Your task to perform on an android device: toggle data saver in the chrome app Image 0: 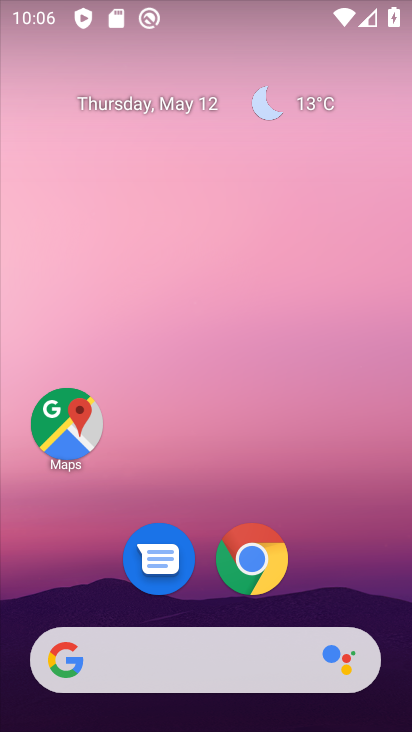
Step 0: click (257, 566)
Your task to perform on an android device: toggle data saver in the chrome app Image 1: 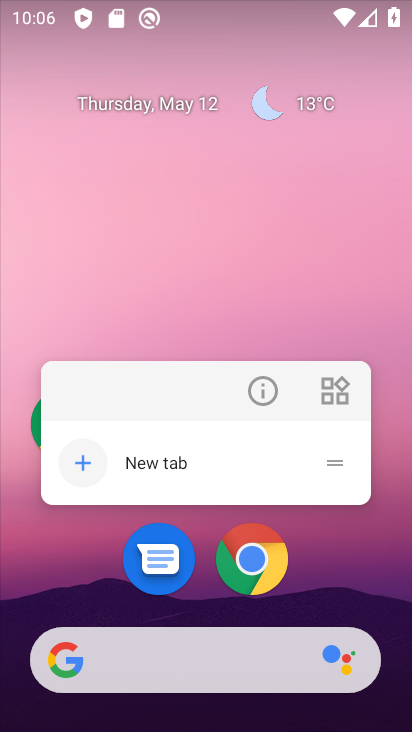
Step 1: click (256, 565)
Your task to perform on an android device: toggle data saver in the chrome app Image 2: 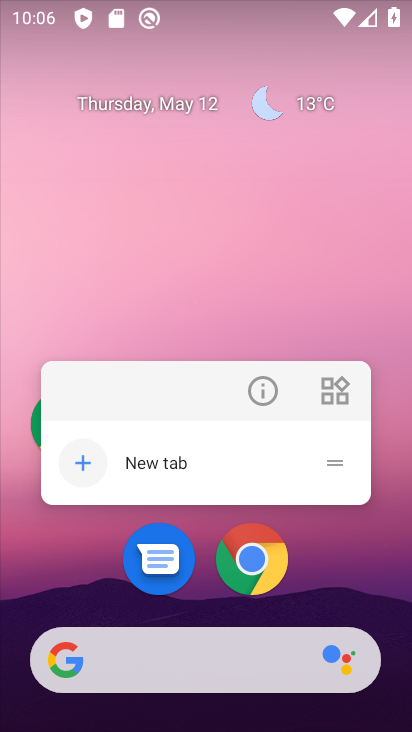
Step 2: click (249, 554)
Your task to perform on an android device: toggle data saver in the chrome app Image 3: 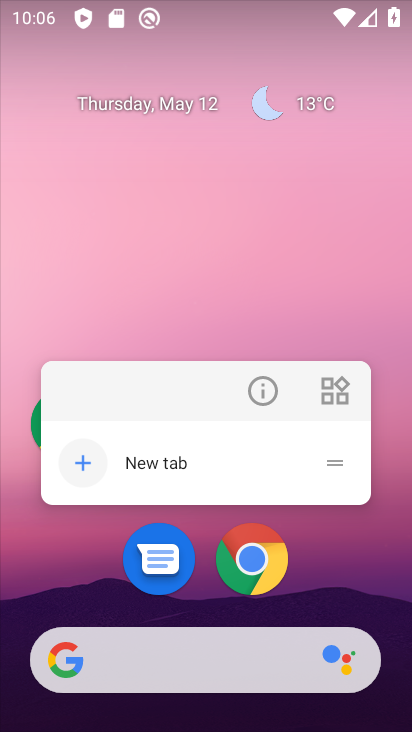
Step 3: click (249, 554)
Your task to perform on an android device: toggle data saver in the chrome app Image 4: 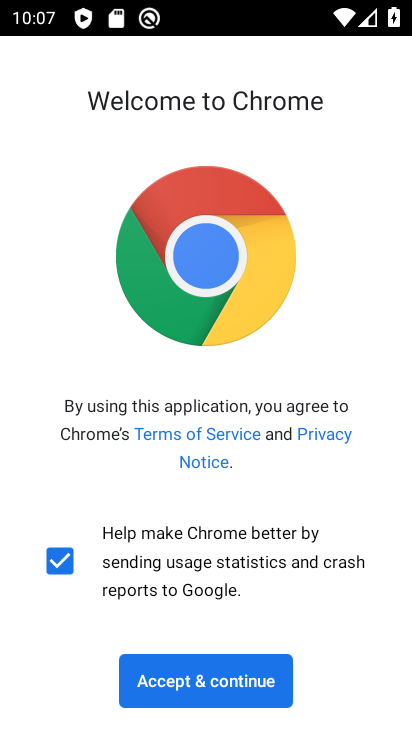
Step 4: click (213, 693)
Your task to perform on an android device: toggle data saver in the chrome app Image 5: 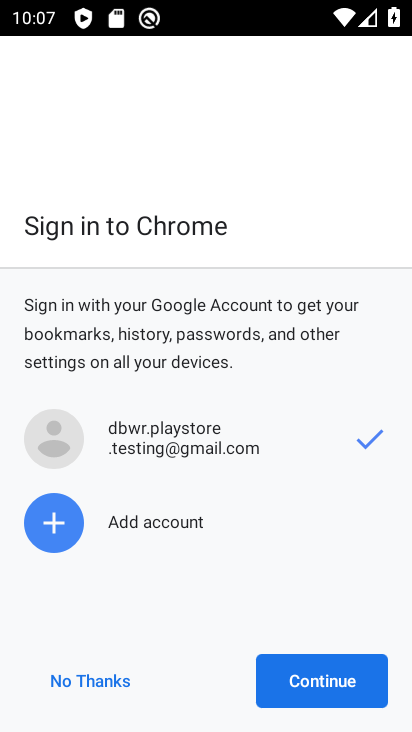
Step 5: click (363, 667)
Your task to perform on an android device: toggle data saver in the chrome app Image 6: 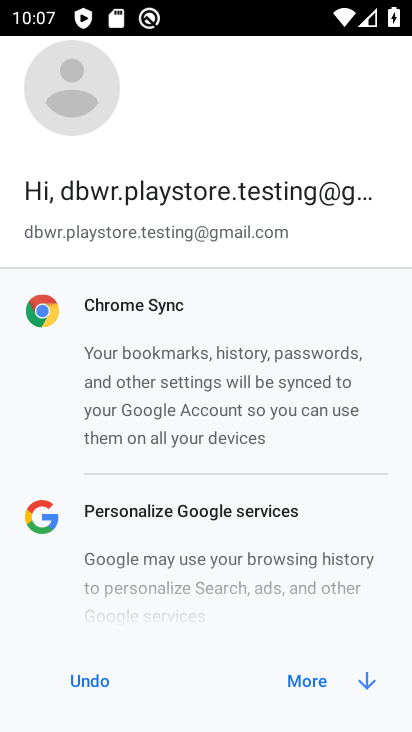
Step 6: click (304, 676)
Your task to perform on an android device: toggle data saver in the chrome app Image 7: 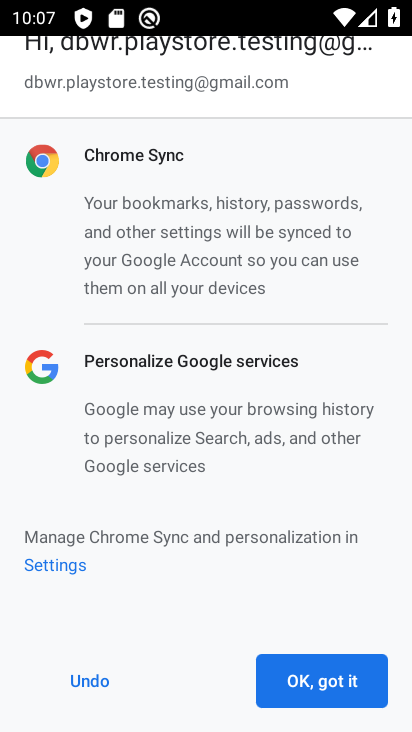
Step 7: click (304, 676)
Your task to perform on an android device: toggle data saver in the chrome app Image 8: 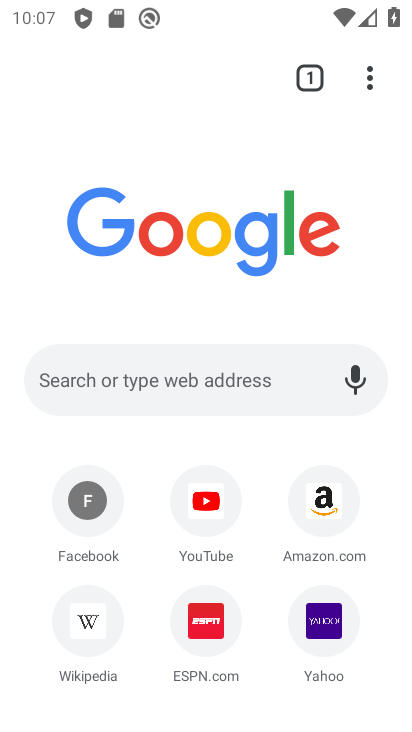
Step 8: click (361, 75)
Your task to perform on an android device: toggle data saver in the chrome app Image 9: 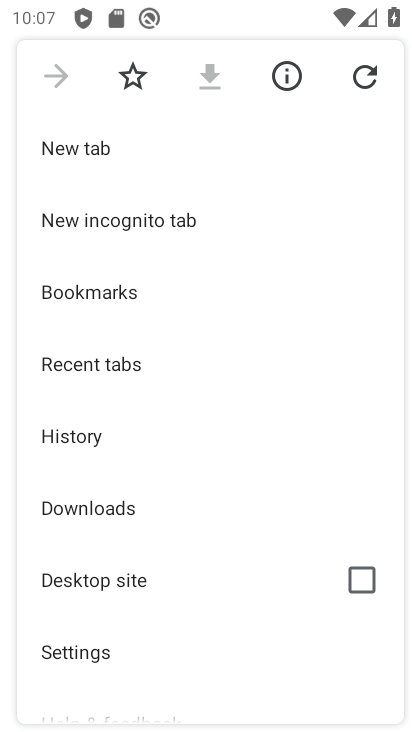
Step 9: drag from (122, 488) to (174, 321)
Your task to perform on an android device: toggle data saver in the chrome app Image 10: 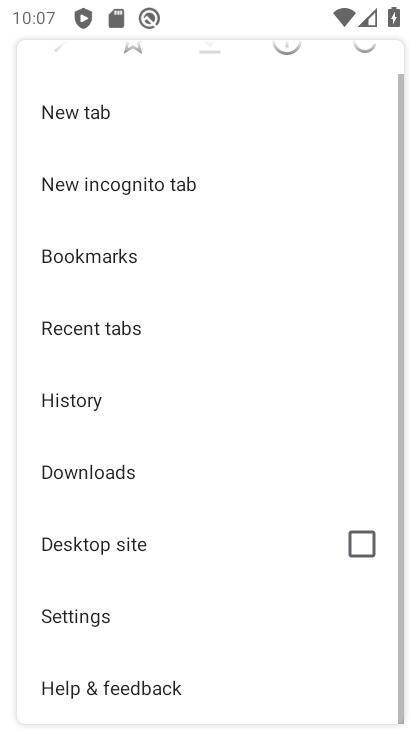
Step 10: click (95, 611)
Your task to perform on an android device: toggle data saver in the chrome app Image 11: 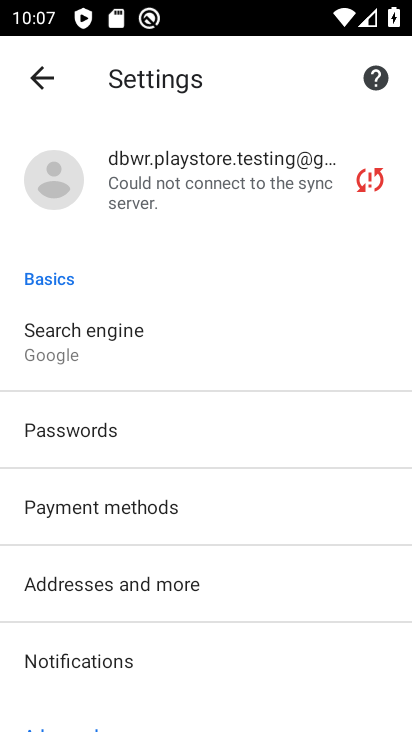
Step 11: drag from (96, 588) to (207, 9)
Your task to perform on an android device: toggle data saver in the chrome app Image 12: 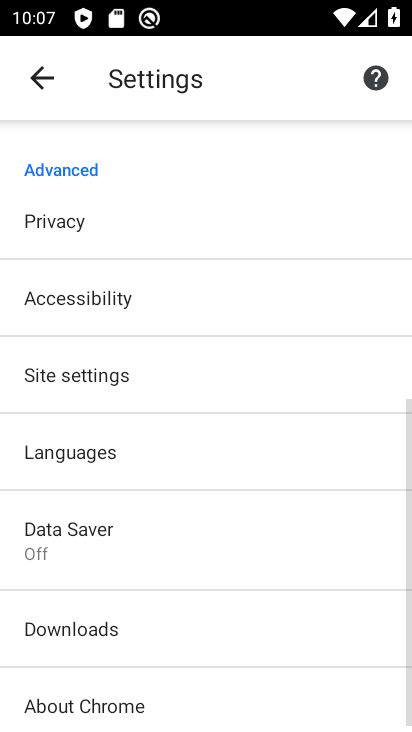
Step 12: click (98, 546)
Your task to perform on an android device: toggle data saver in the chrome app Image 13: 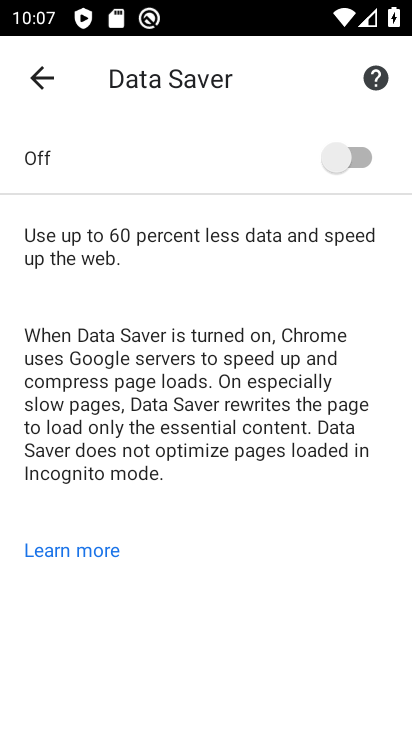
Step 13: click (370, 154)
Your task to perform on an android device: toggle data saver in the chrome app Image 14: 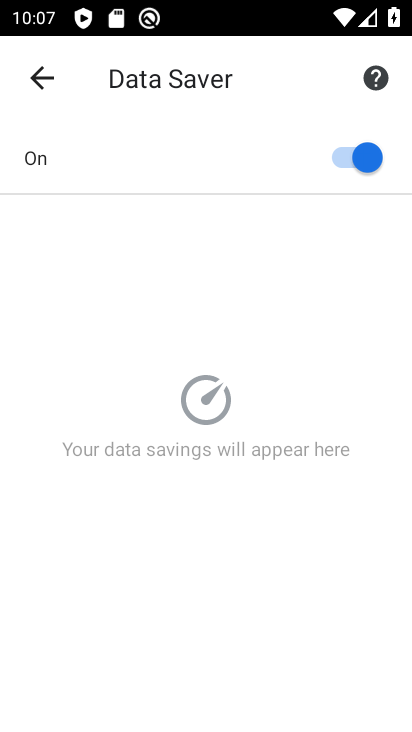
Step 14: task complete